Your task to perform on an android device: Go to Google maps Image 0: 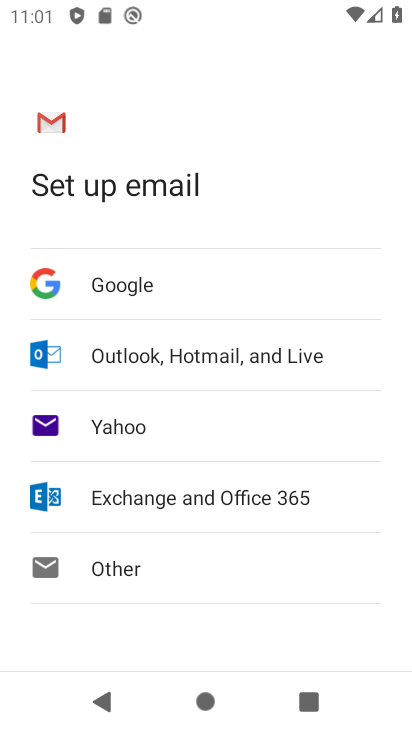
Step 0: press home button
Your task to perform on an android device: Go to Google maps Image 1: 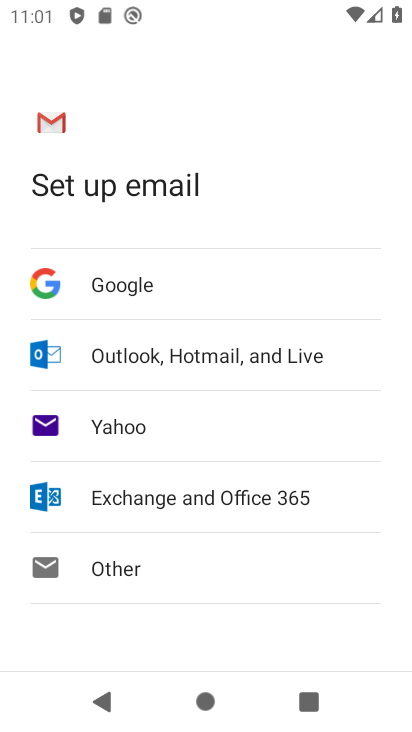
Step 1: press home button
Your task to perform on an android device: Go to Google maps Image 2: 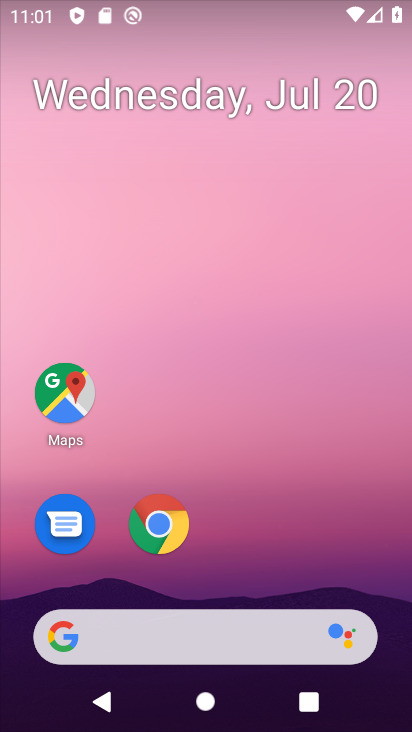
Step 2: click (49, 387)
Your task to perform on an android device: Go to Google maps Image 3: 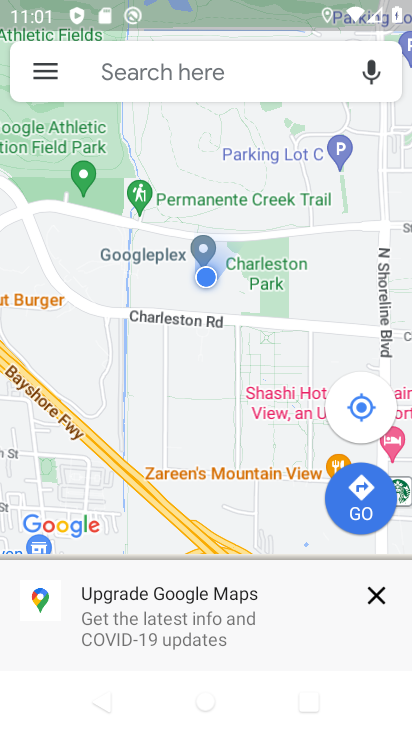
Step 3: task complete